Your task to perform on an android device: Open notification settings Image 0: 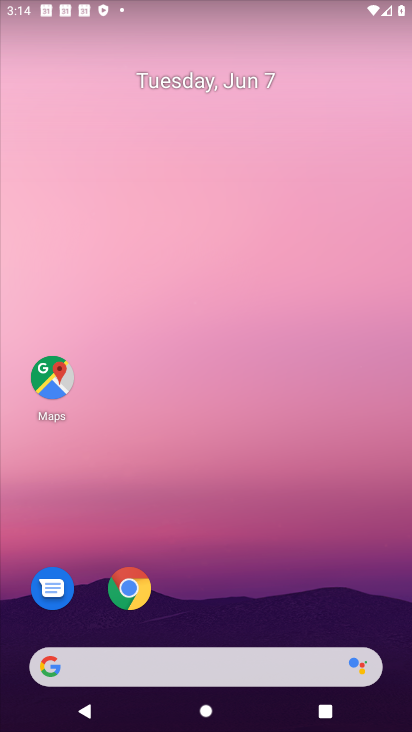
Step 0: task complete